Your task to perform on an android device: What is the recent news? Image 0: 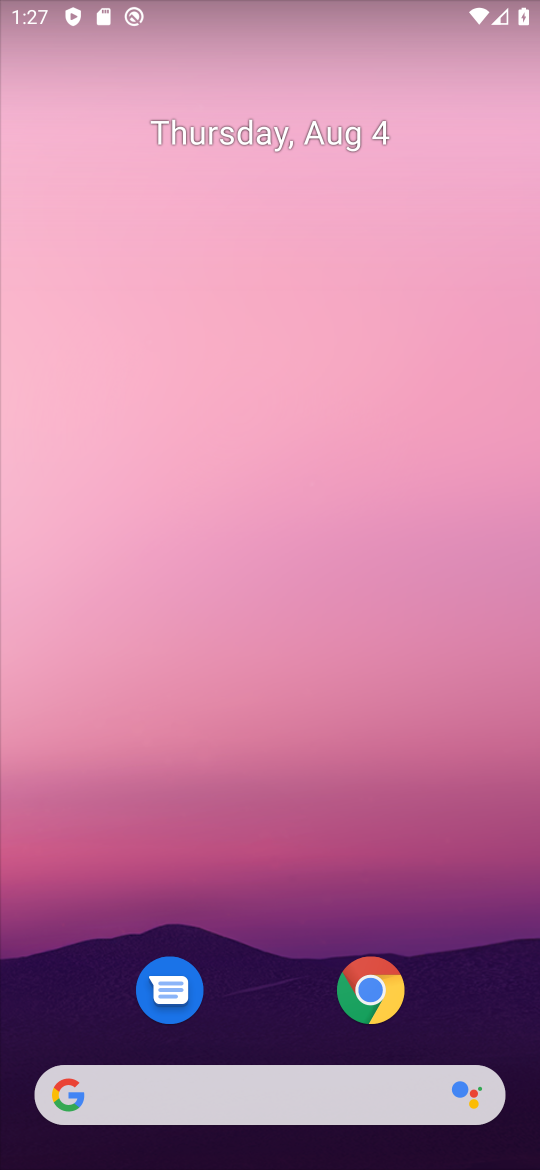
Step 0: drag from (312, 1049) to (304, 337)
Your task to perform on an android device: What is the recent news? Image 1: 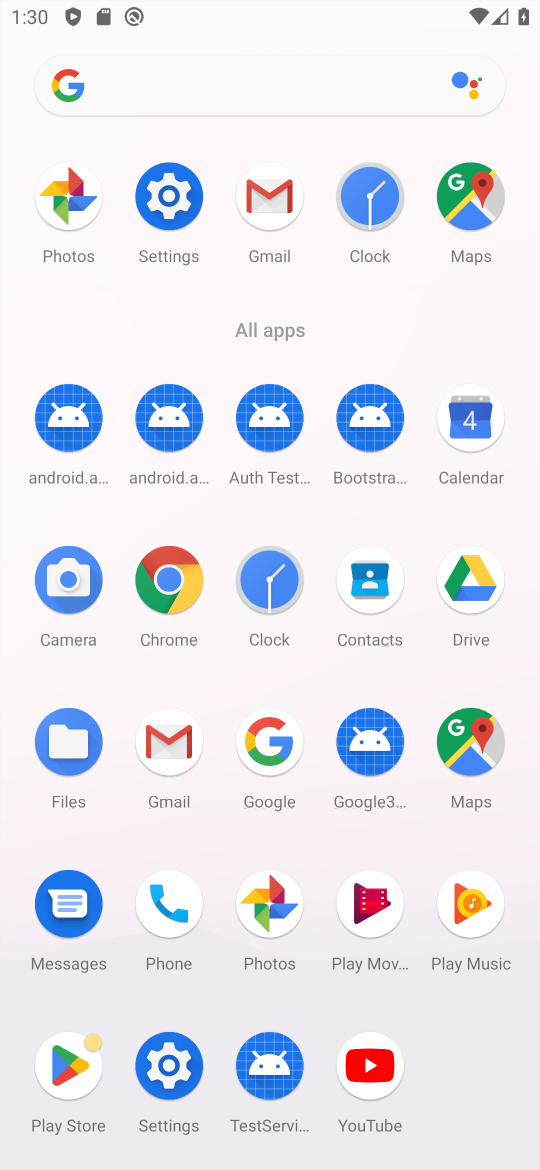
Step 1: click (247, 78)
Your task to perform on an android device: What is the recent news? Image 2: 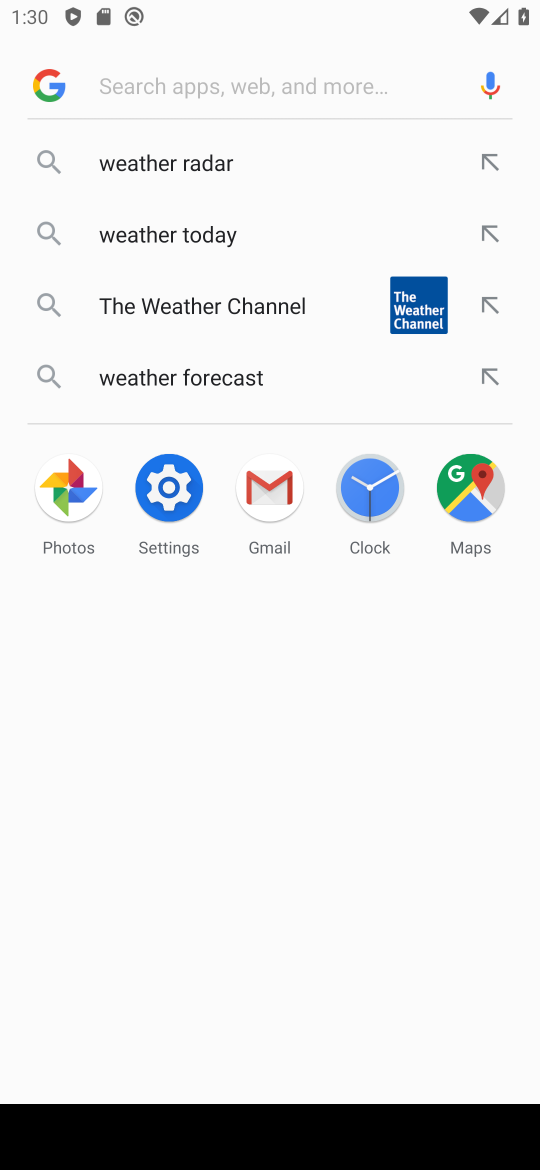
Step 2: type "recent nes"
Your task to perform on an android device: What is the recent news? Image 3: 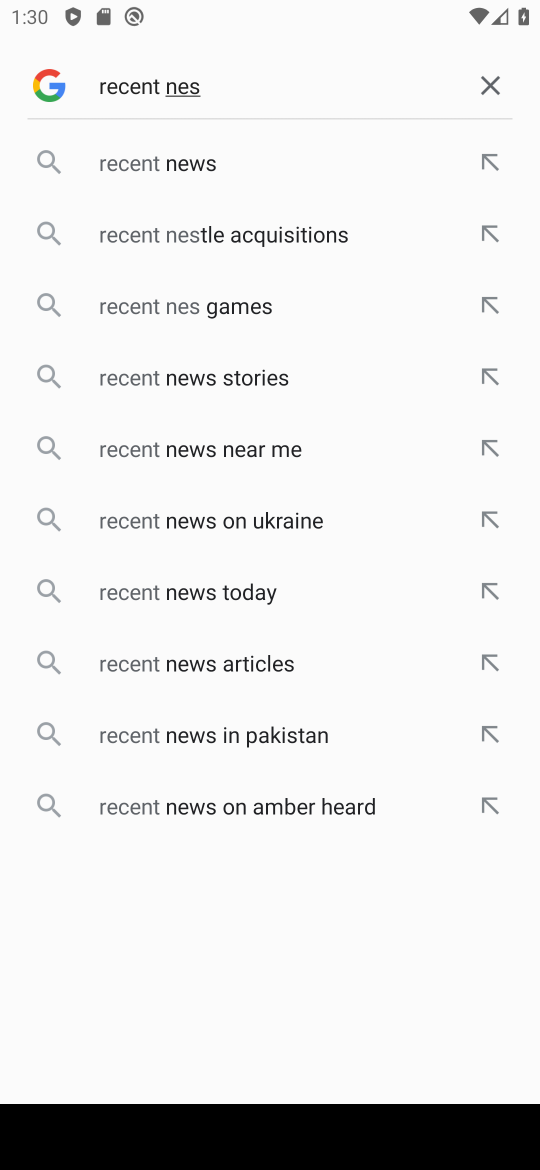
Step 3: click (288, 155)
Your task to perform on an android device: What is the recent news? Image 4: 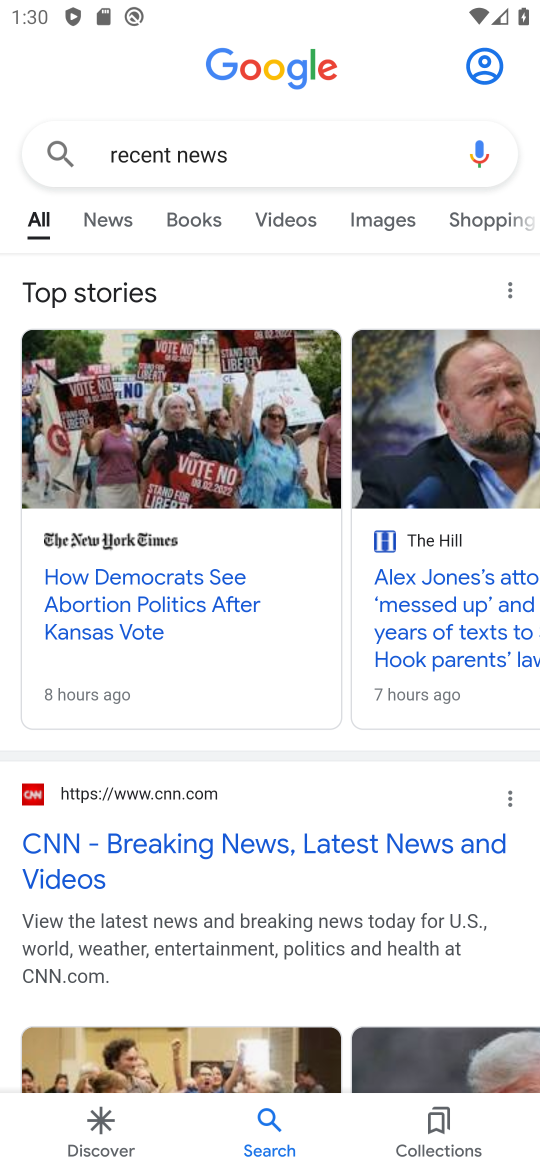
Step 4: task complete